Your task to perform on an android device: check battery use Image 0: 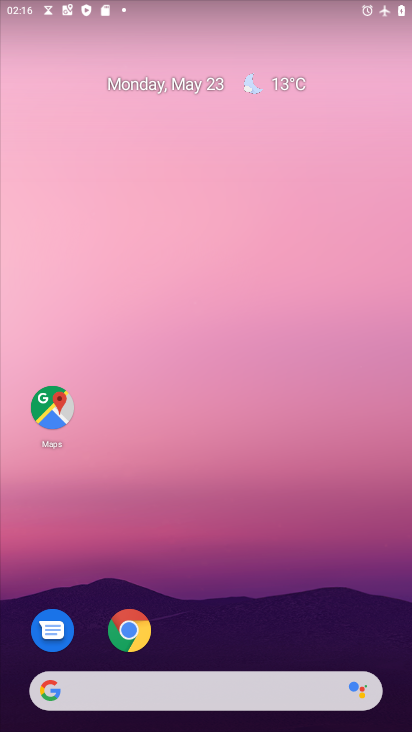
Step 0: drag from (226, 297) to (194, 118)
Your task to perform on an android device: check battery use Image 1: 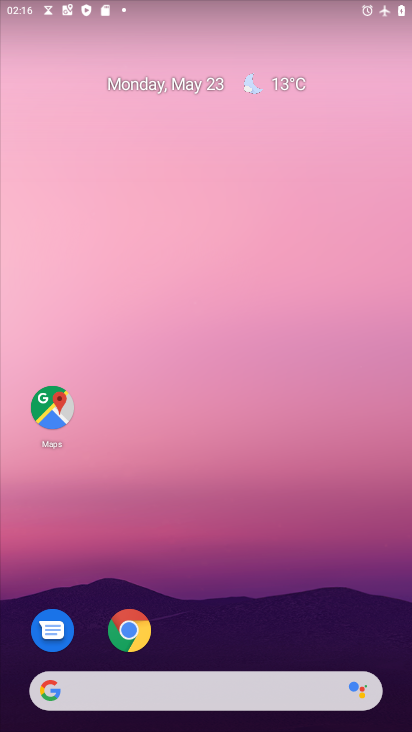
Step 1: drag from (165, 115) to (147, 0)
Your task to perform on an android device: check battery use Image 2: 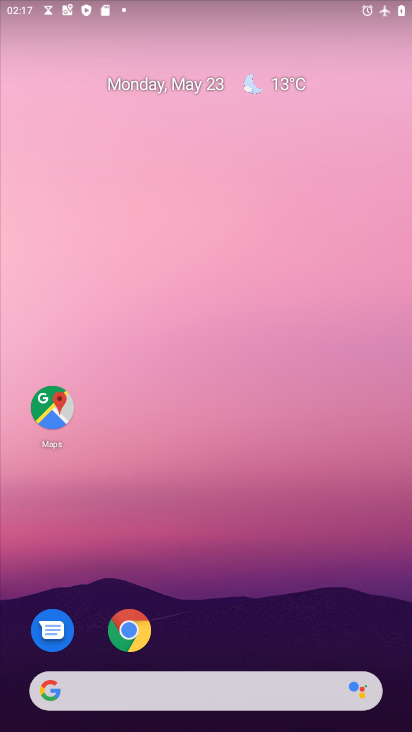
Step 2: drag from (252, 406) to (121, 9)
Your task to perform on an android device: check battery use Image 3: 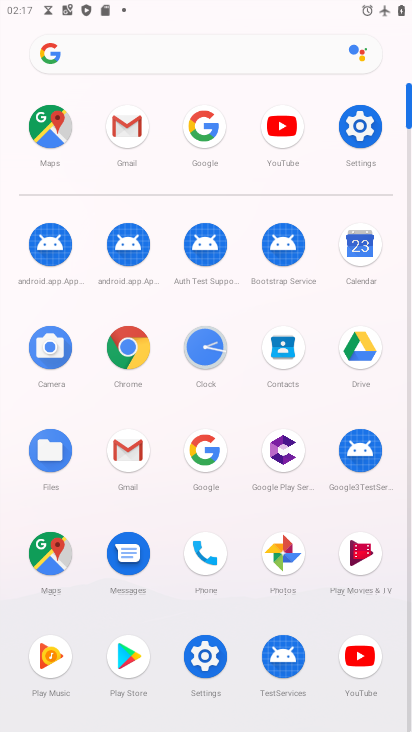
Step 3: click (353, 135)
Your task to perform on an android device: check battery use Image 4: 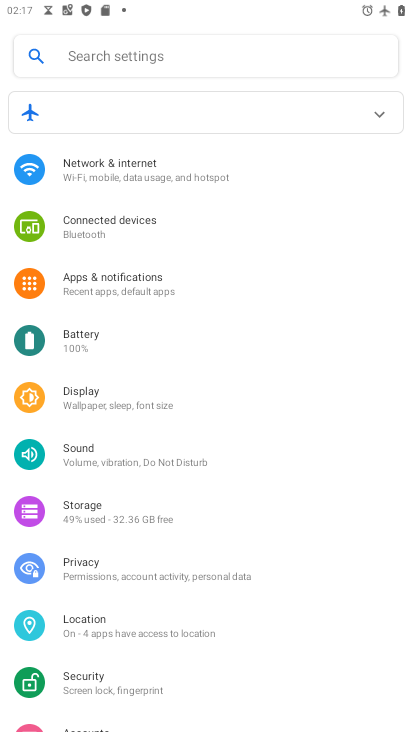
Step 4: click (206, 336)
Your task to perform on an android device: check battery use Image 5: 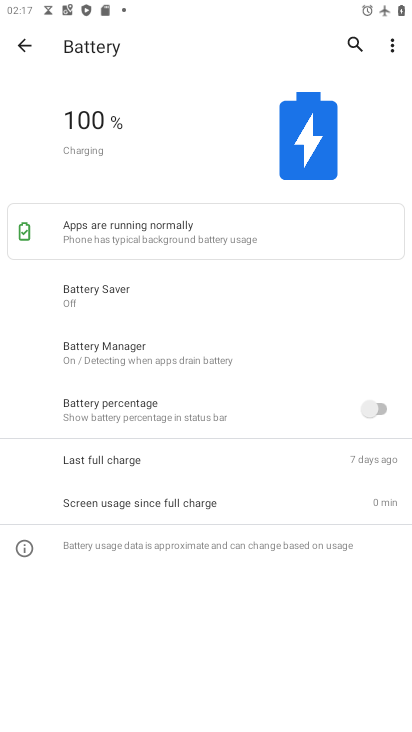
Step 5: click (394, 44)
Your task to perform on an android device: check battery use Image 6: 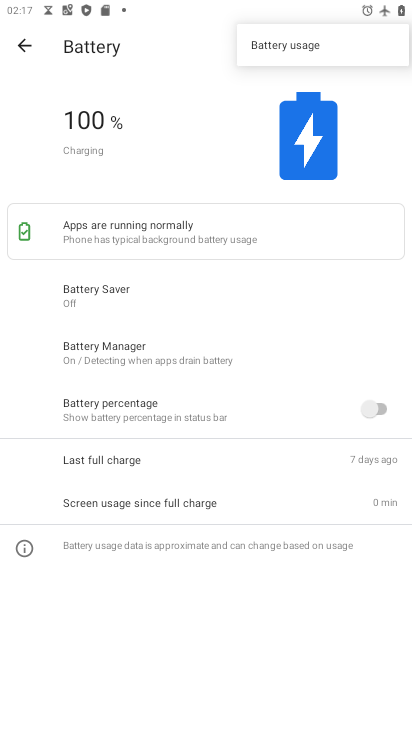
Step 6: click (299, 34)
Your task to perform on an android device: check battery use Image 7: 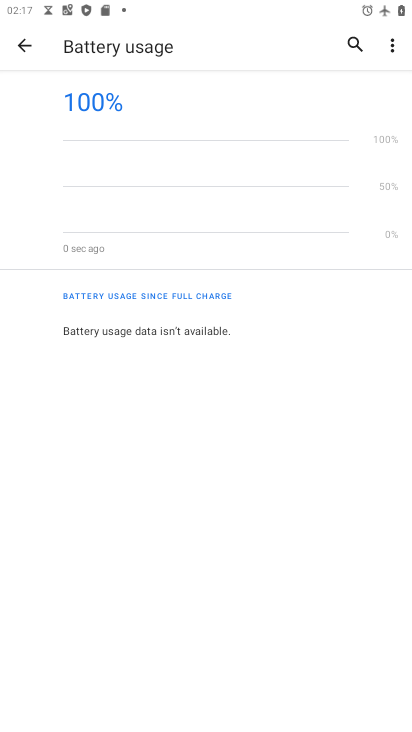
Step 7: task complete